Your task to perform on an android device: open a bookmark in the chrome app Image 0: 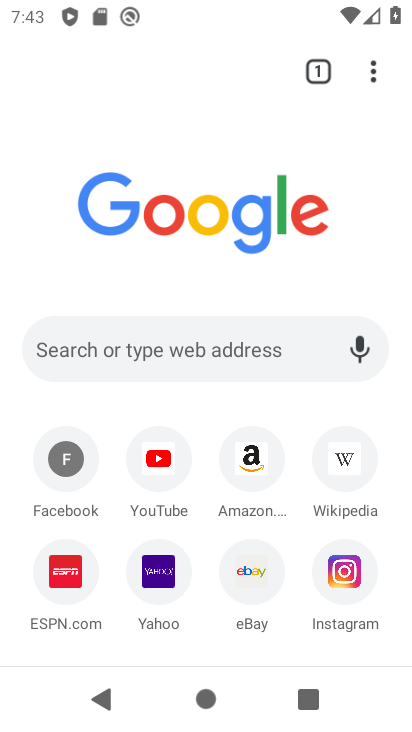
Step 0: drag from (372, 69) to (140, 283)
Your task to perform on an android device: open a bookmark in the chrome app Image 1: 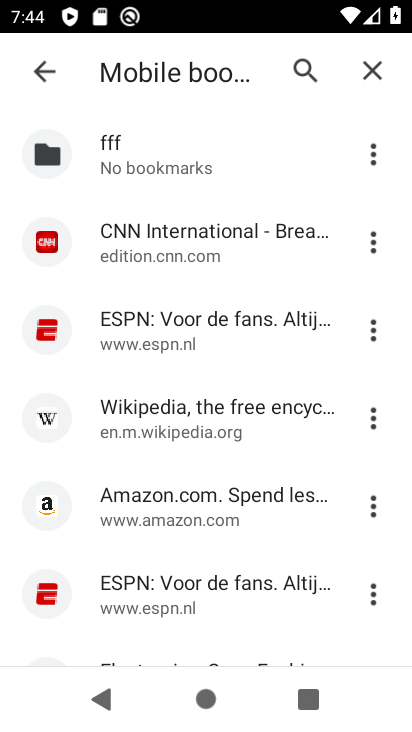
Step 1: click (160, 240)
Your task to perform on an android device: open a bookmark in the chrome app Image 2: 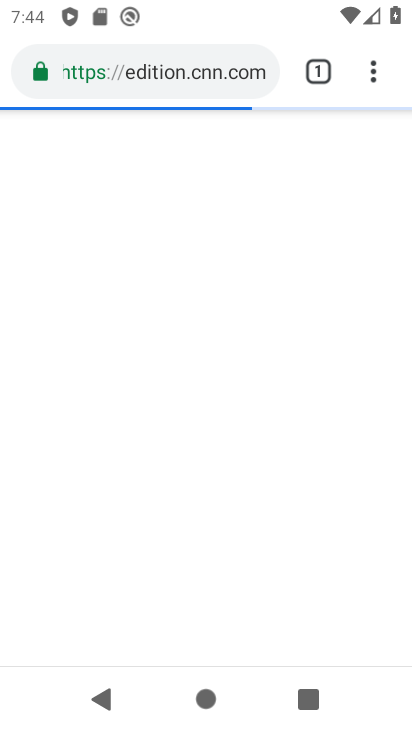
Step 2: task complete